Your task to perform on an android device: toggle javascript in the chrome app Image 0: 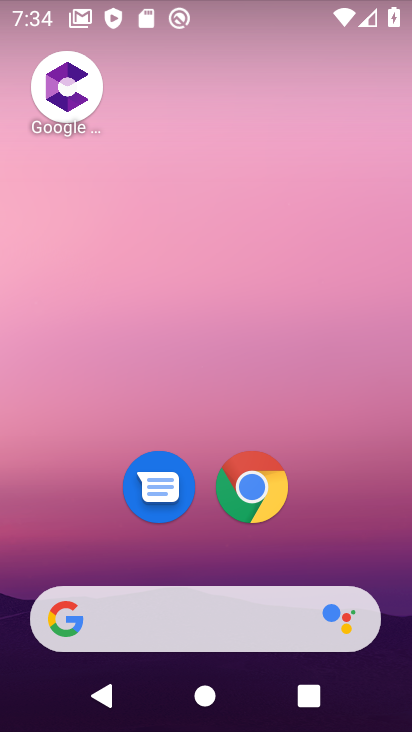
Step 0: click (259, 503)
Your task to perform on an android device: toggle javascript in the chrome app Image 1: 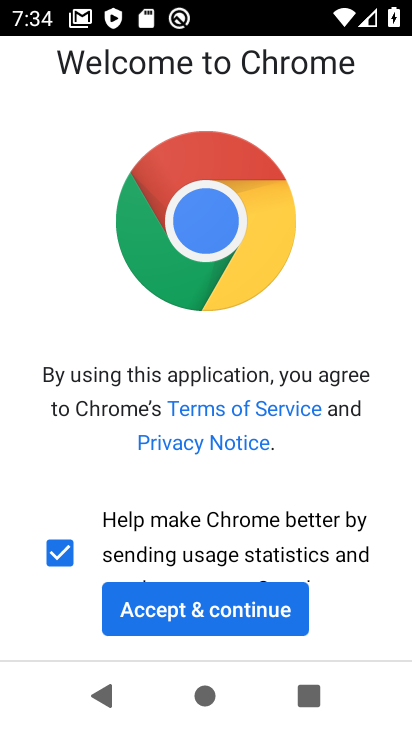
Step 1: click (204, 613)
Your task to perform on an android device: toggle javascript in the chrome app Image 2: 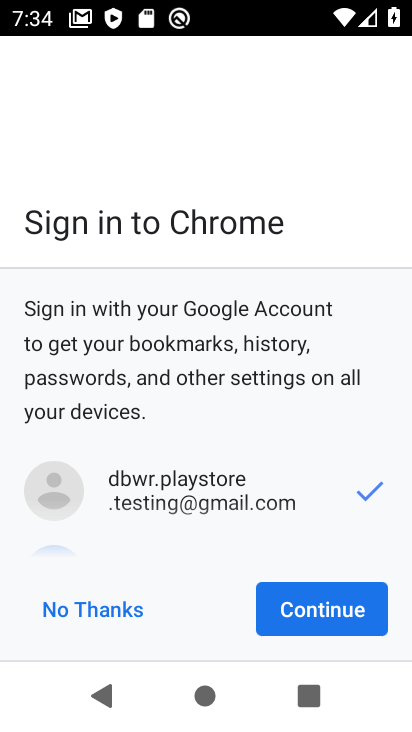
Step 2: click (329, 607)
Your task to perform on an android device: toggle javascript in the chrome app Image 3: 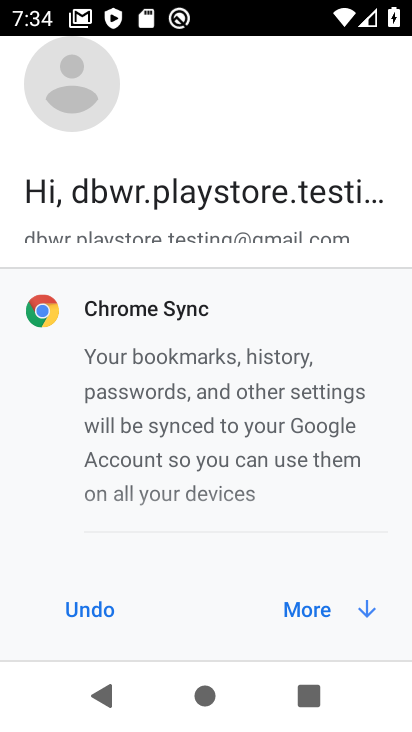
Step 3: click (329, 607)
Your task to perform on an android device: toggle javascript in the chrome app Image 4: 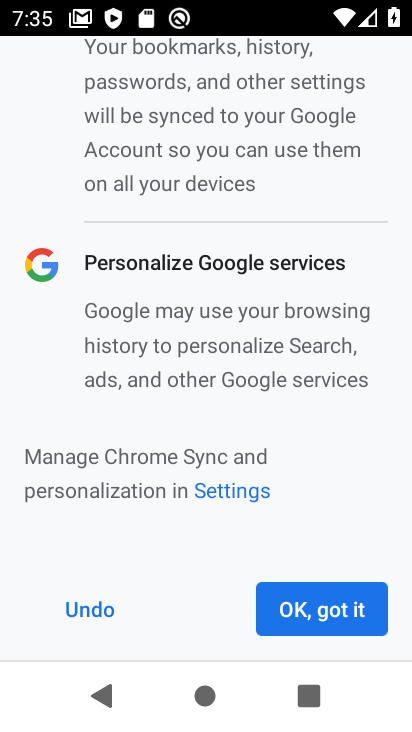
Step 4: click (329, 607)
Your task to perform on an android device: toggle javascript in the chrome app Image 5: 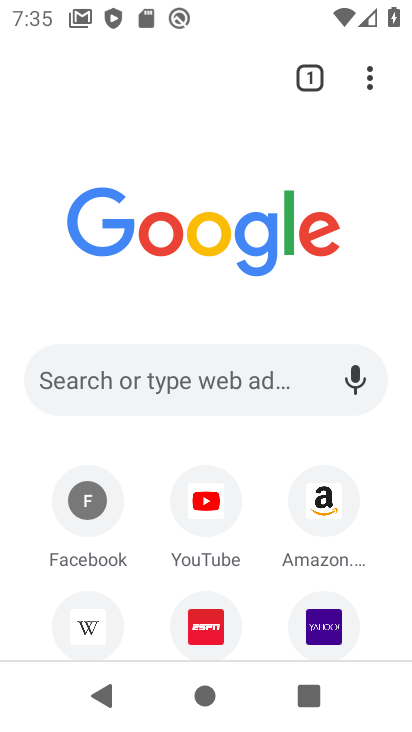
Step 5: click (364, 91)
Your task to perform on an android device: toggle javascript in the chrome app Image 6: 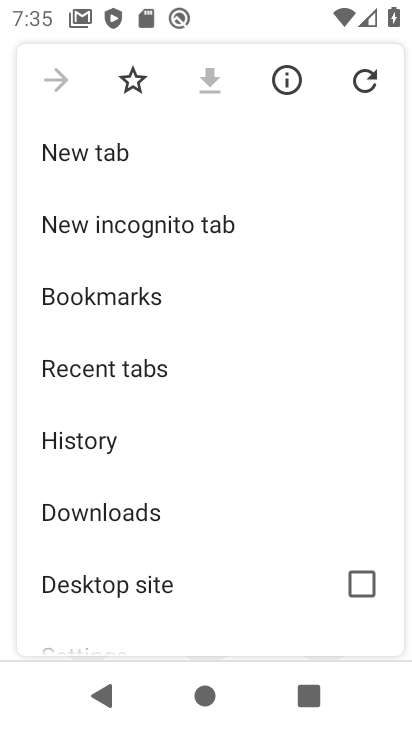
Step 6: drag from (192, 573) to (209, 371)
Your task to perform on an android device: toggle javascript in the chrome app Image 7: 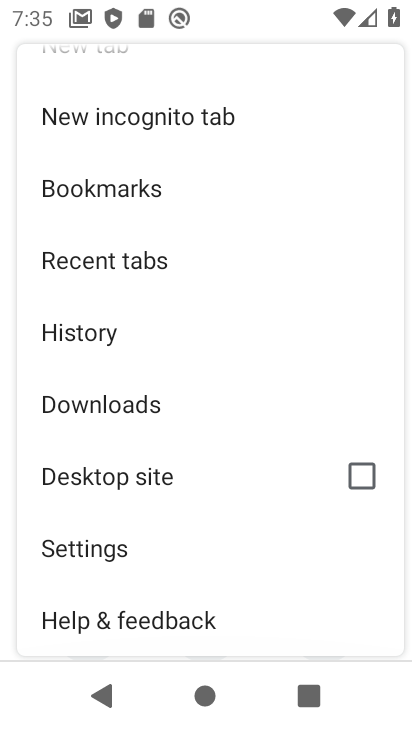
Step 7: click (209, 371)
Your task to perform on an android device: toggle javascript in the chrome app Image 8: 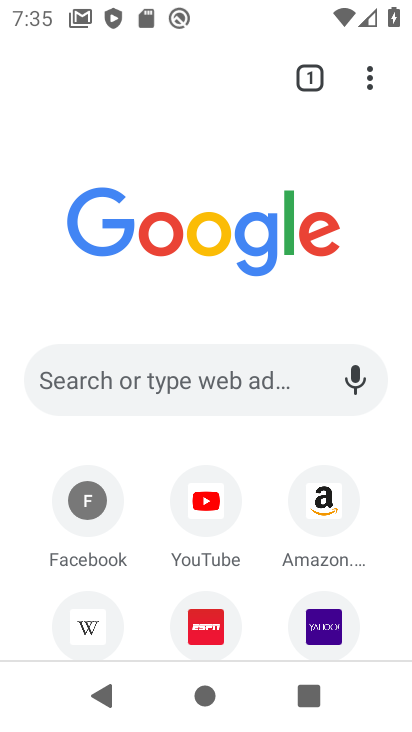
Step 8: click (153, 555)
Your task to perform on an android device: toggle javascript in the chrome app Image 9: 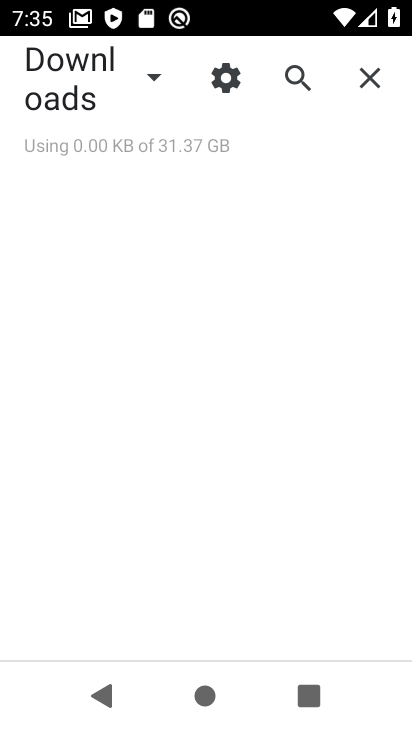
Step 9: click (362, 77)
Your task to perform on an android device: toggle javascript in the chrome app Image 10: 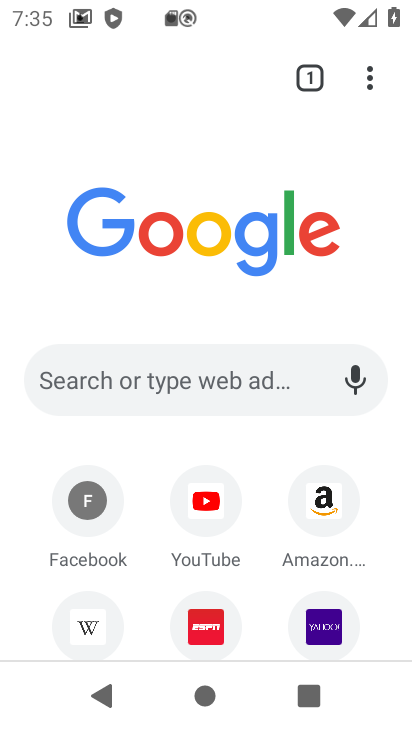
Step 10: click (374, 82)
Your task to perform on an android device: toggle javascript in the chrome app Image 11: 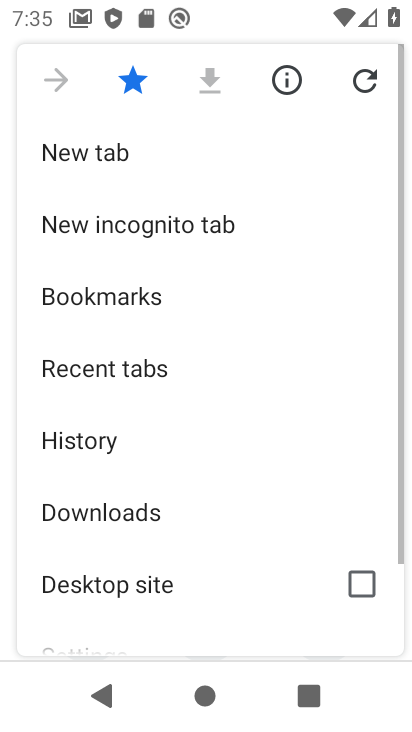
Step 11: drag from (228, 503) to (344, 176)
Your task to perform on an android device: toggle javascript in the chrome app Image 12: 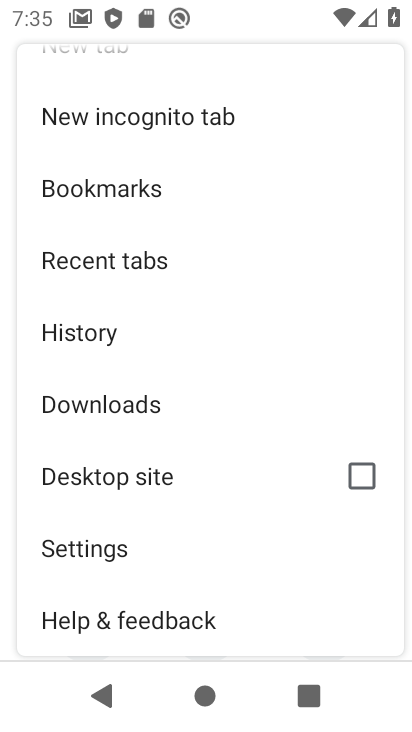
Step 12: click (132, 553)
Your task to perform on an android device: toggle javascript in the chrome app Image 13: 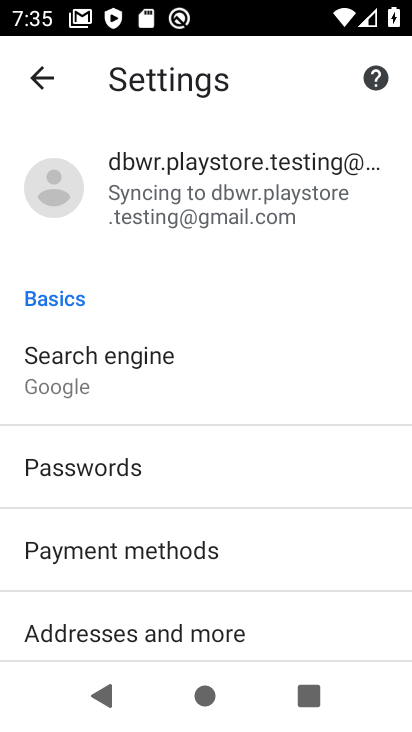
Step 13: drag from (132, 553) to (166, 278)
Your task to perform on an android device: toggle javascript in the chrome app Image 14: 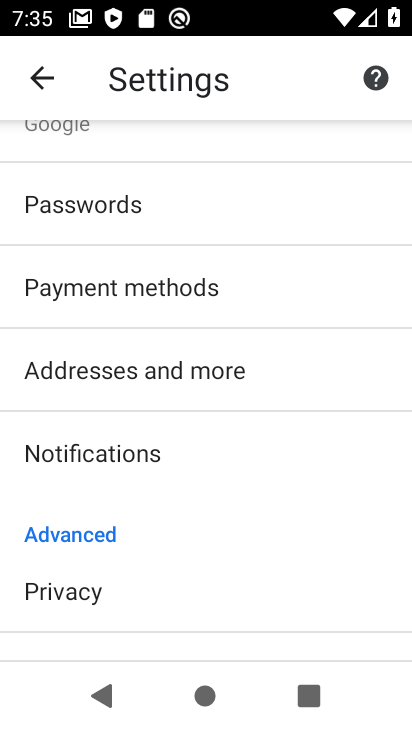
Step 14: drag from (173, 543) to (247, 254)
Your task to perform on an android device: toggle javascript in the chrome app Image 15: 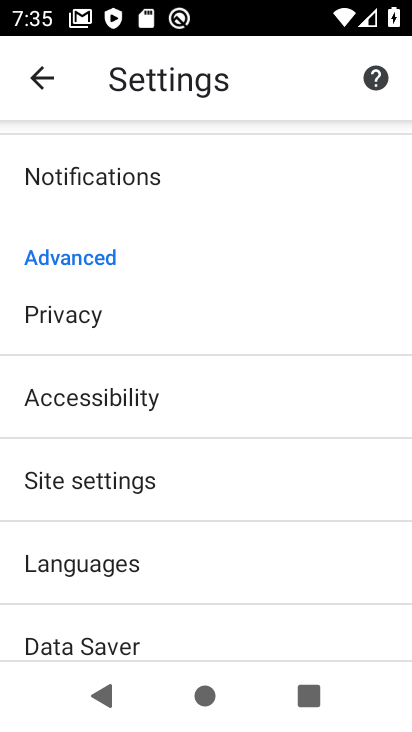
Step 15: drag from (146, 588) to (202, 351)
Your task to perform on an android device: toggle javascript in the chrome app Image 16: 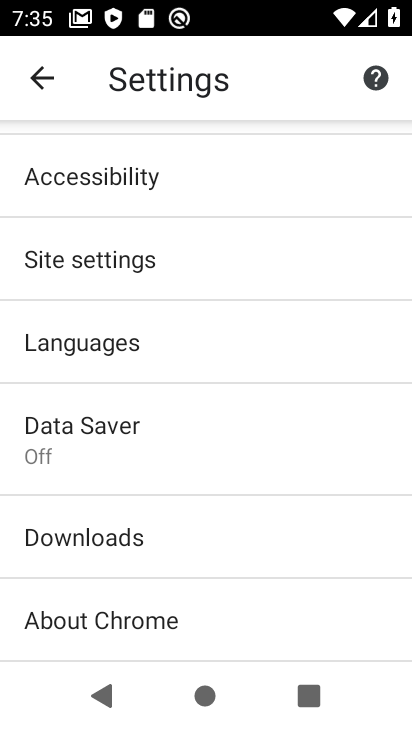
Step 16: click (201, 280)
Your task to perform on an android device: toggle javascript in the chrome app Image 17: 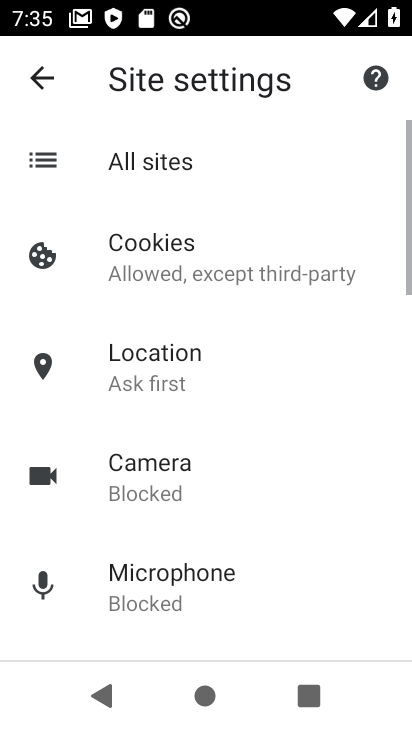
Step 17: drag from (184, 556) to (223, 213)
Your task to perform on an android device: toggle javascript in the chrome app Image 18: 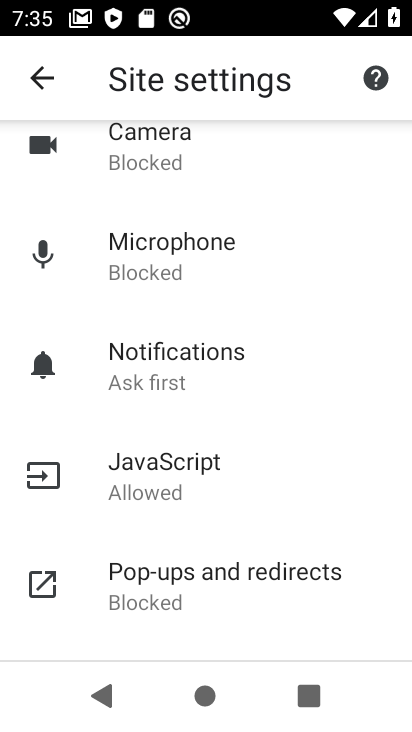
Step 18: click (196, 492)
Your task to perform on an android device: toggle javascript in the chrome app Image 19: 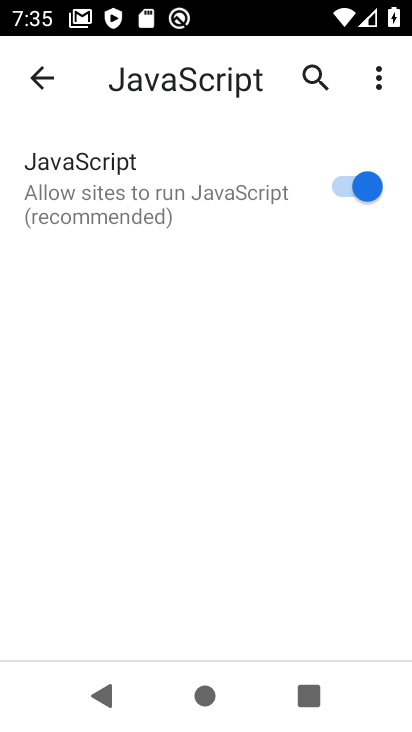
Step 19: click (346, 181)
Your task to perform on an android device: toggle javascript in the chrome app Image 20: 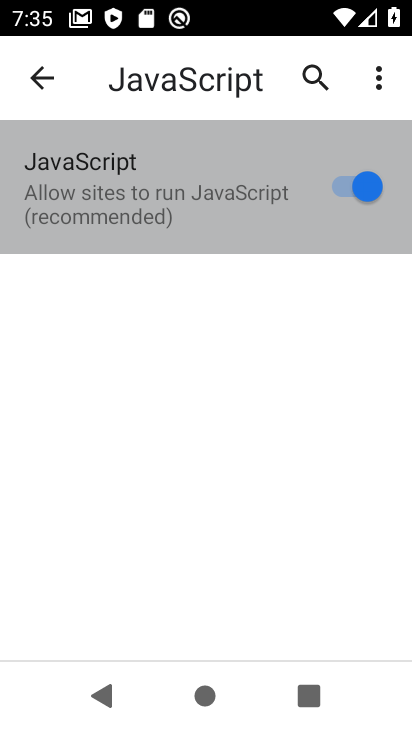
Step 20: task complete